Your task to perform on an android device: Go to network settings Image 0: 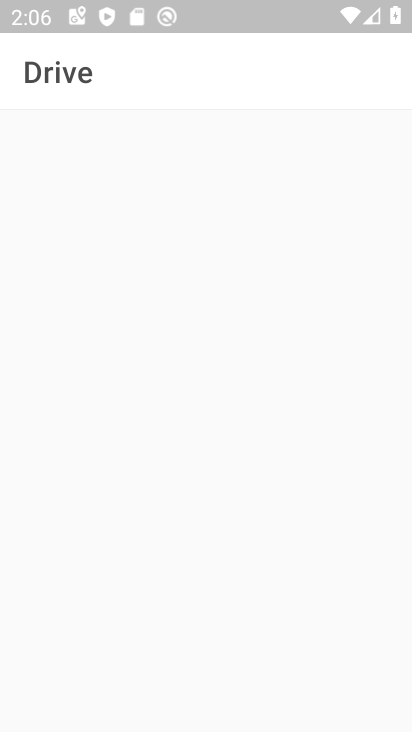
Step 0: press home button
Your task to perform on an android device: Go to network settings Image 1: 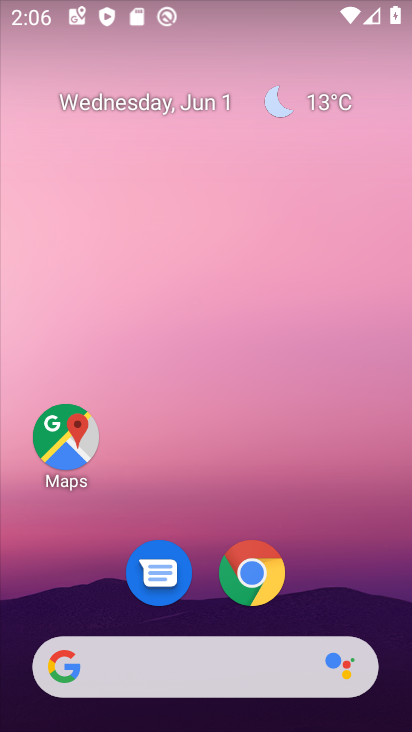
Step 1: drag from (221, 634) to (191, 88)
Your task to perform on an android device: Go to network settings Image 2: 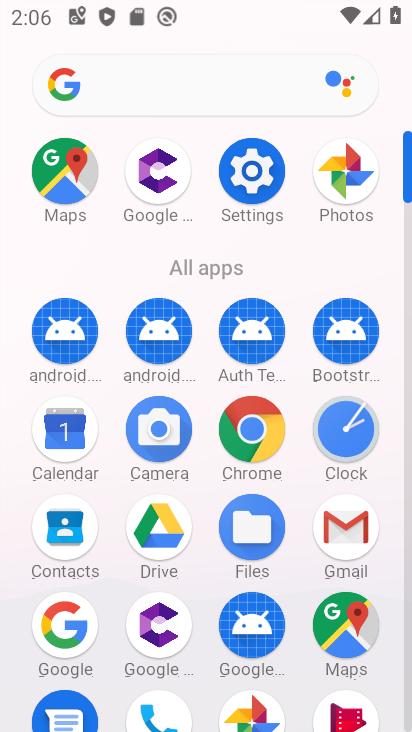
Step 2: click (268, 167)
Your task to perform on an android device: Go to network settings Image 3: 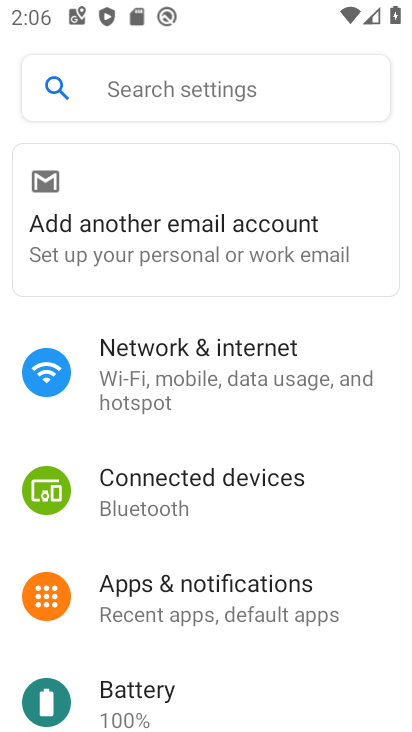
Step 3: click (186, 358)
Your task to perform on an android device: Go to network settings Image 4: 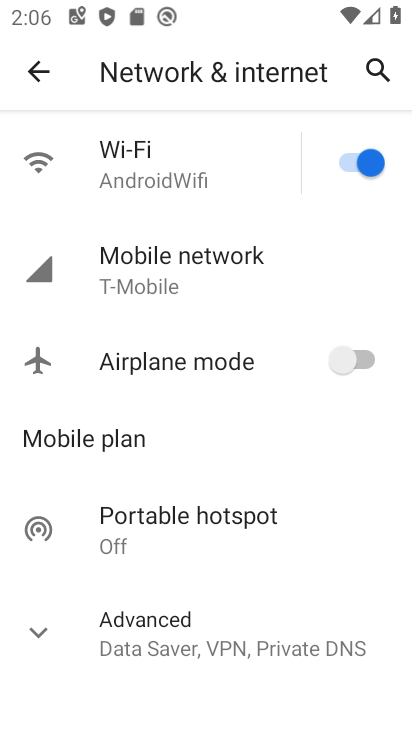
Step 4: click (184, 287)
Your task to perform on an android device: Go to network settings Image 5: 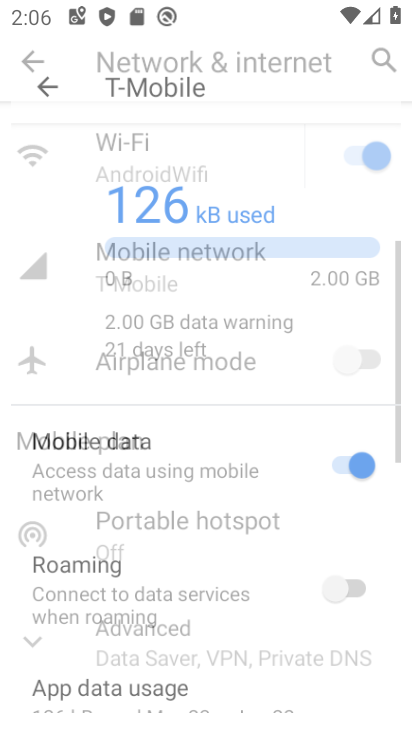
Step 5: task complete